Your task to perform on an android device: open chrome and create a bookmark for the current page Image 0: 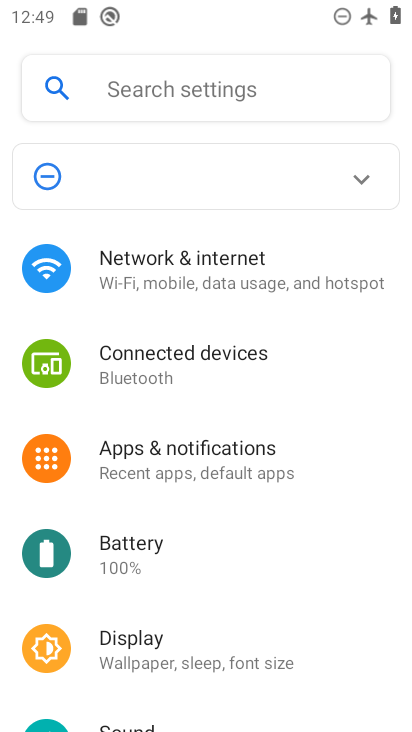
Step 0: press home button
Your task to perform on an android device: open chrome and create a bookmark for the current page Image 1: 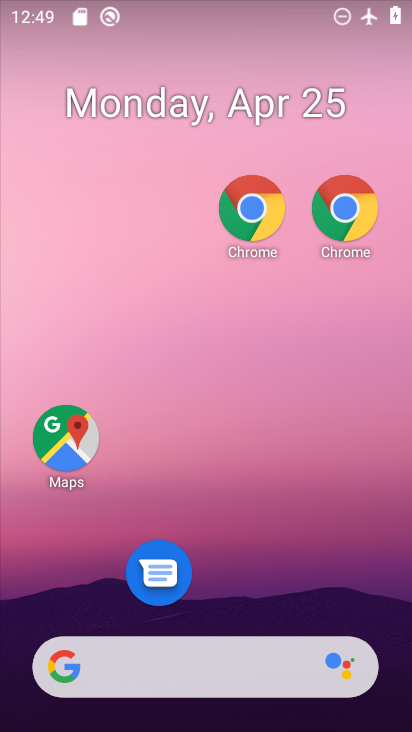
Step 1: click (341, 206)
Your task to perform on an android device: open chrome and create a bookmark for the current page Image 2: 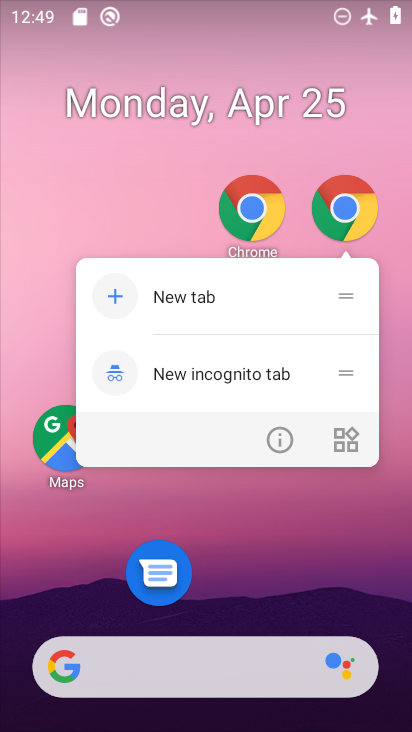
Step 2: click (184, 291)
Your task to perform on an android device: open chrome and create a bookmark for the current page Image 3: 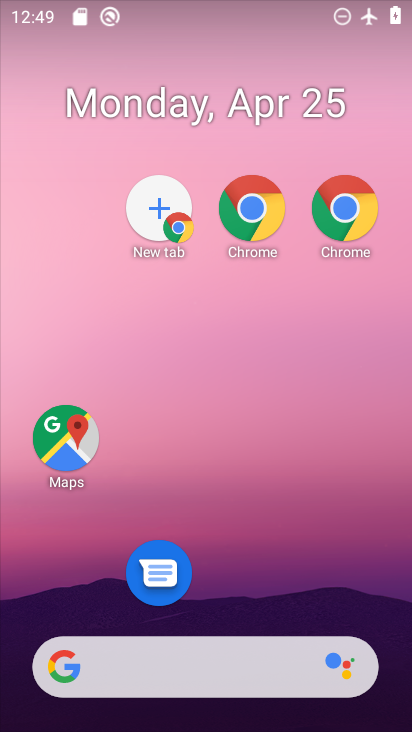
Step 3: drag from (220, 536) to (186, 305)
Your task to perform on an android device: open chrome and create a bookmark for the current page Image 4: 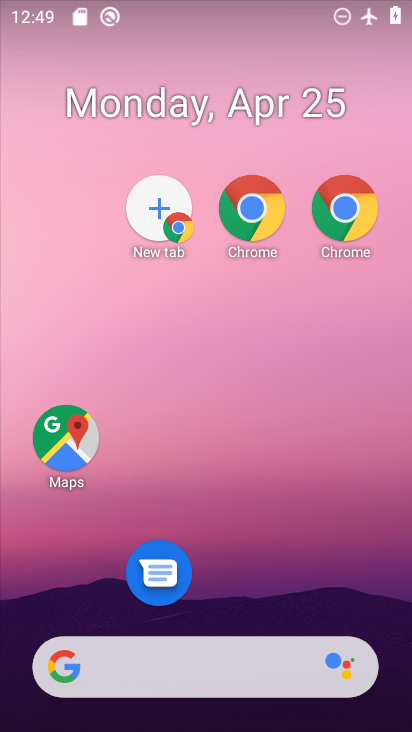
Step 4: drag from (266, 626) to (91, 18)
Your task to perform on an android device: open chrome and create a bookmark for the current page Image 5: 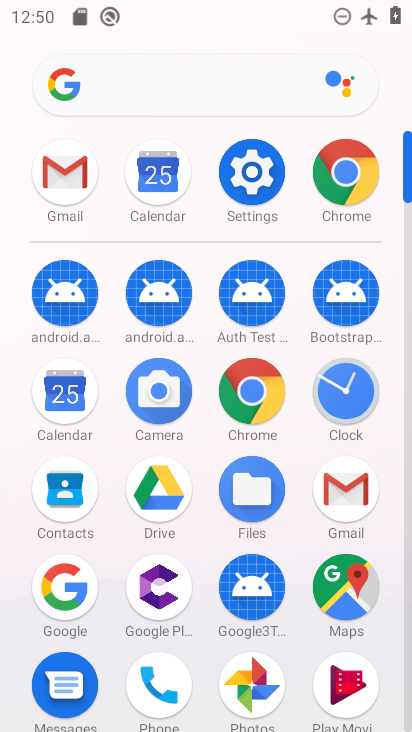
Step 5: click (341, 174)
Your task to perform on an android device: open chrome and create a bookmark for the current page Image 6: 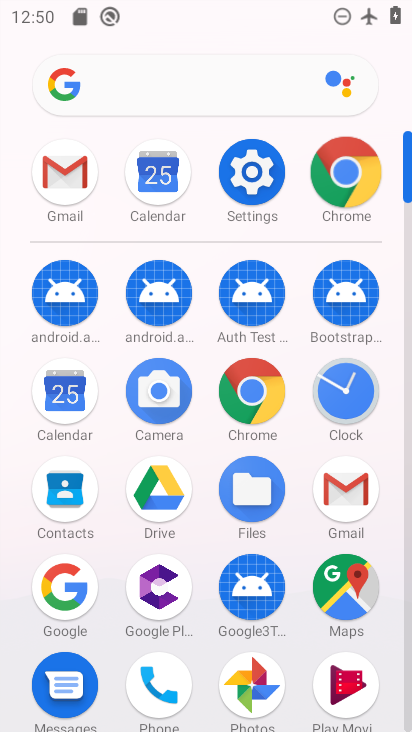
Step 6: click (341, 174)
Your task to perform on an android device: open chrome and create a bookmark for the current page Image 7: 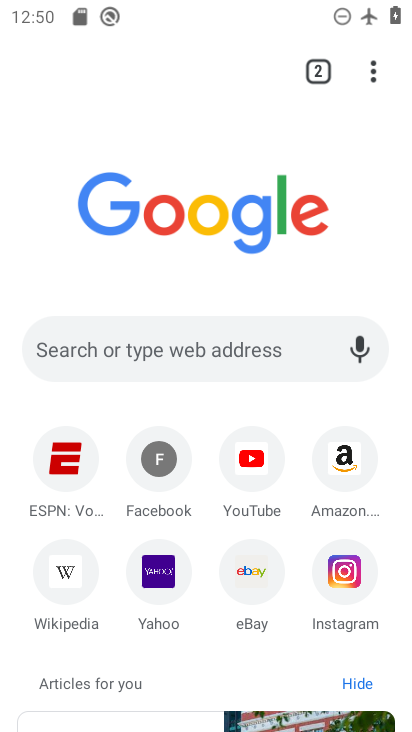
Step 7: drag from (376, 71) to (125, 299)
Your task to perform on an android device: open chrome and create a bookmark for the current page Image 8: 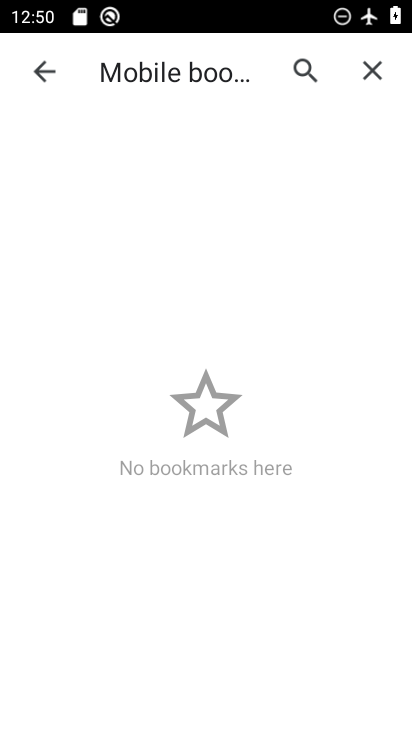
Step 8: click (35, 66)
Your task to perform on an android device: open chrome and create a bookmark for the current page Image 9: 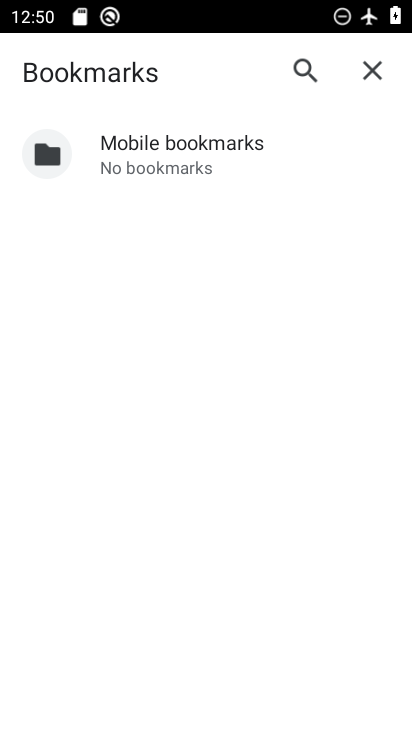
Step 9: click (374, 74)
Your task to perform on an android device: open chrome and create a bookmark for the current page Image 10: 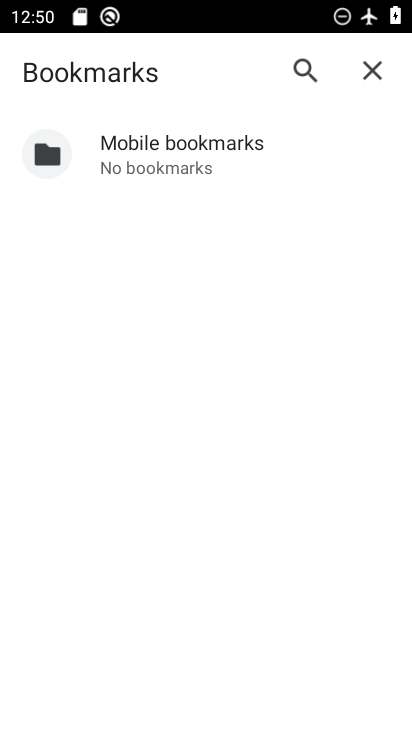
Step 10: click (369, 66)
Your task to perform on an android device: open chrome and create a bookmark for the current page Image 11: 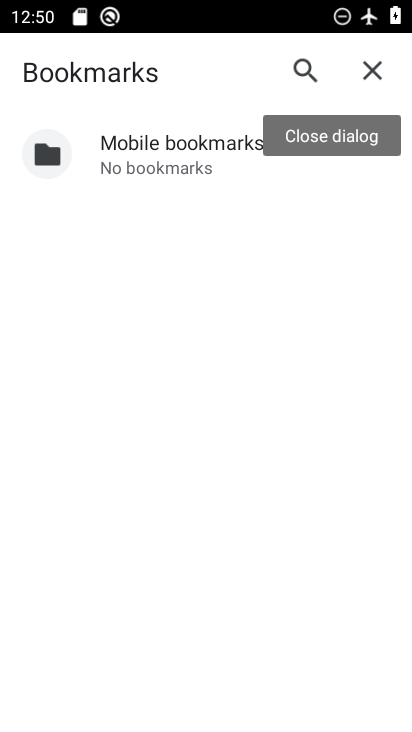
Step 11: click (369, 66)
Your task to perform on an android device: open chrome and create a bookmark for the current page Image 12: 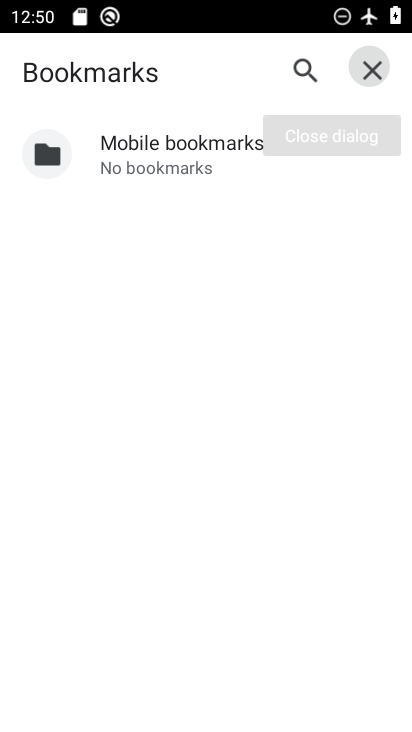
Step 12: click (369, 66)
Your task to perform on an android device: open chrome and create a bookmark for the current page Image 13: 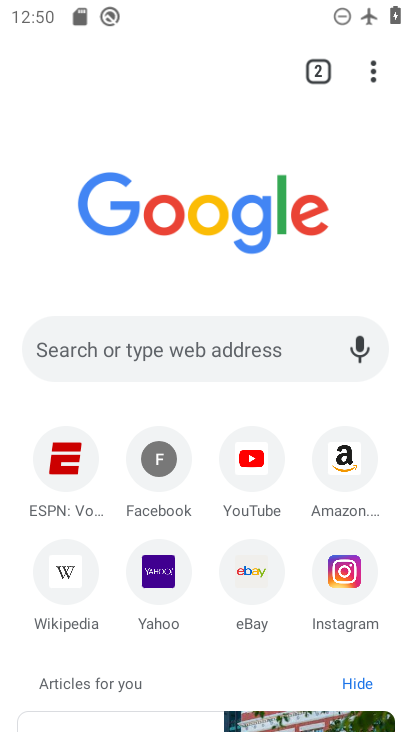
Step 13: click (116, 346)
Your task to perform on an android device: open chrome and create a bookmark for the current page Image 14: 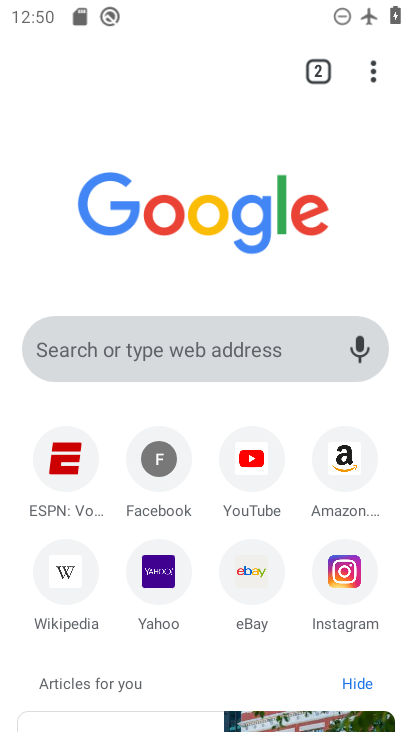
Step 14: click (116, 346)
Your task to perform on an android device: open chrome and create a bookmark for the current page Image 15: 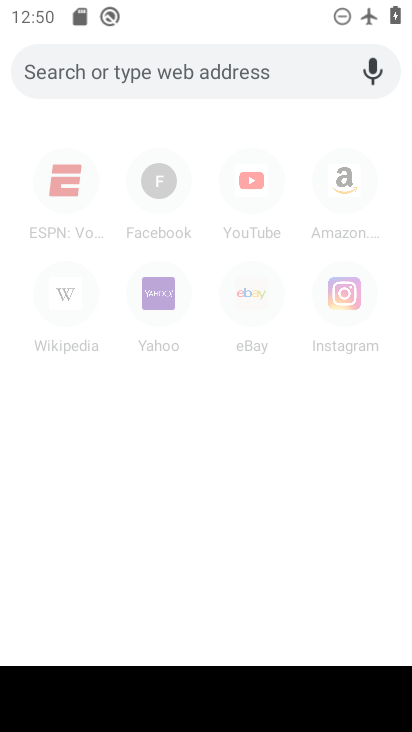
Step 15: click (116, 346)
Your task to perform on an android device: open chrome and create a bookmark for the current page Image 16: 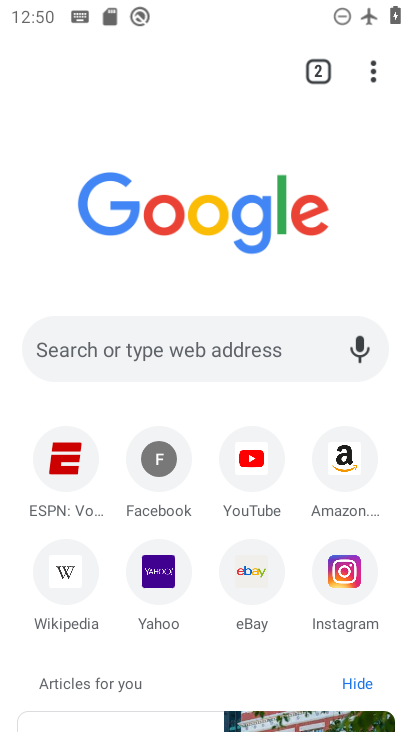
Step 16: type "www.snapdeal.com"
Your task to perform on an android device: open chrome and create a bookmark for the current page Image 17: 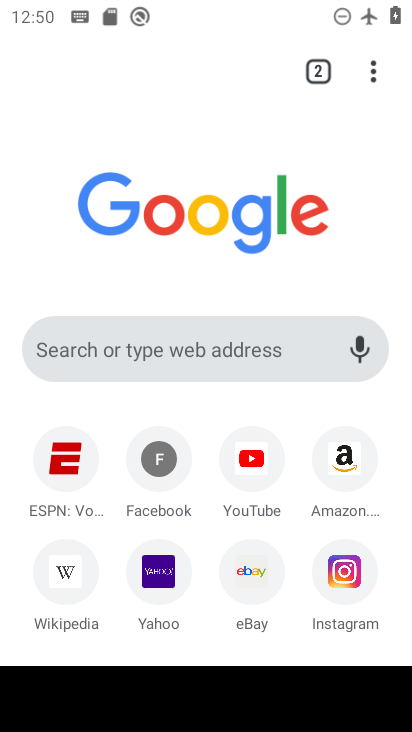
Step 17: click (70, 369)
Your task to perform on an android device: open chrome and create a bookmark for the current page Image 18: 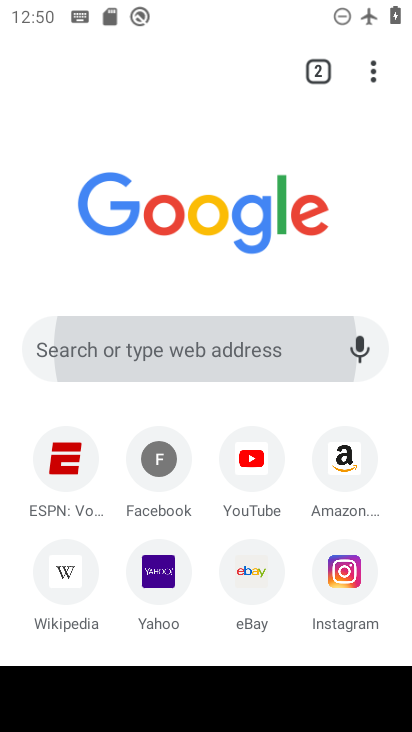
Step 18: click (67, 346)
Your task to perform on an android device: open chrome and create a bookmark for the current page Image 19: 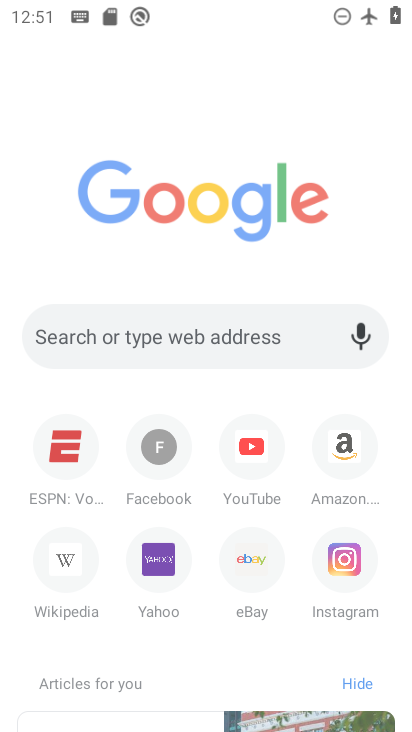
Step 19: click (67, 346)
Your task to perform on an android device: open chrome and create a bookmark for the current page Image 20: 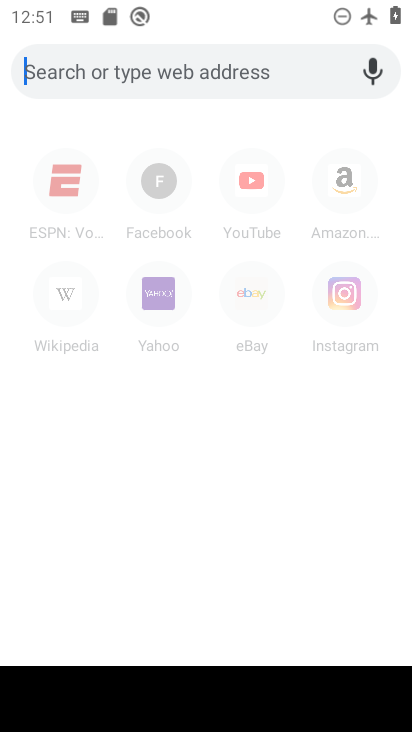
Step 20: type "www.snapdeal.com"
Your task to perform on an android device: open chrome and create a bookmark for the current page Image 21: 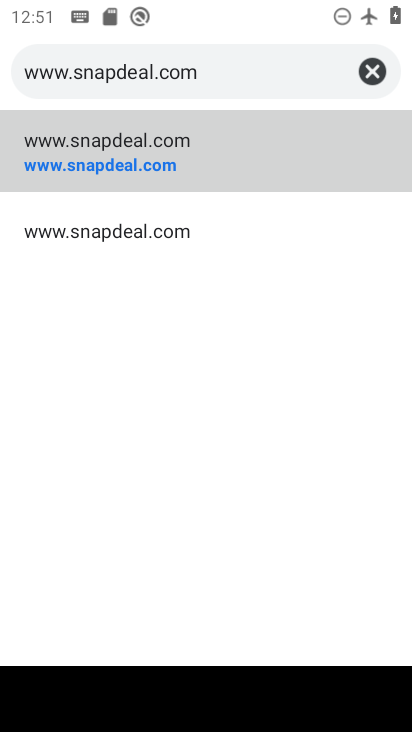
Step 21: click (134, 164)
Your task to perform on an android device: open chrome and create a bookmark for the current page Image 22: 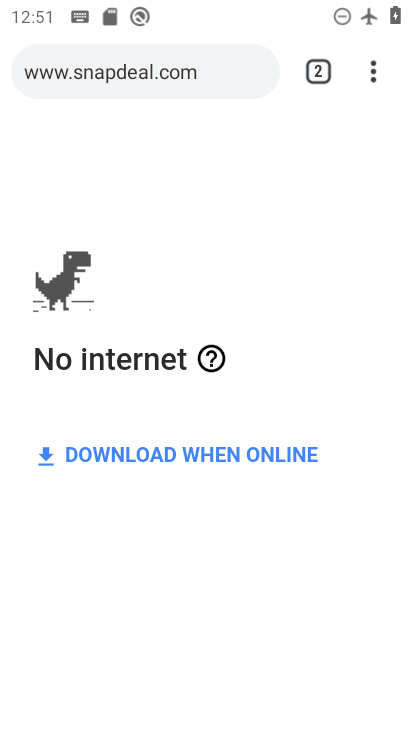
Step 22: task complete